Your task to perform on an android device: toggle airplane mode Image 0: 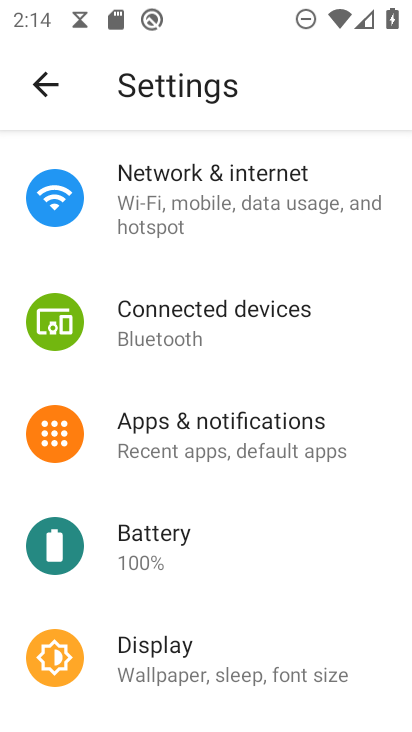
Step 0: click (240, 194)
Your task to perform on an android device: toggle airplane mode Image 1: 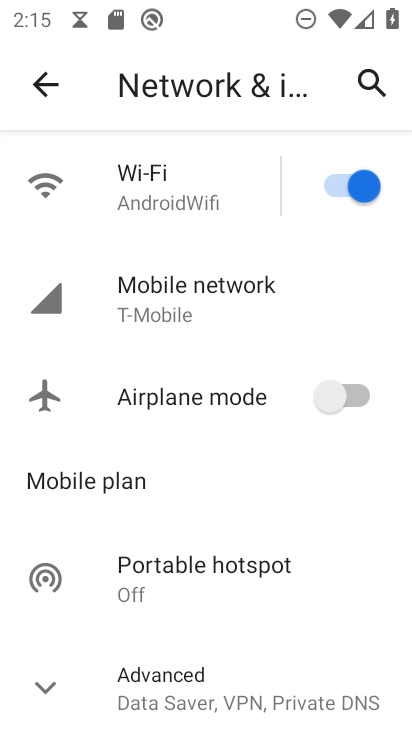
Step 1: click (380, 401)
Your task to perform on an android device: toggle airplane mode Image 2: 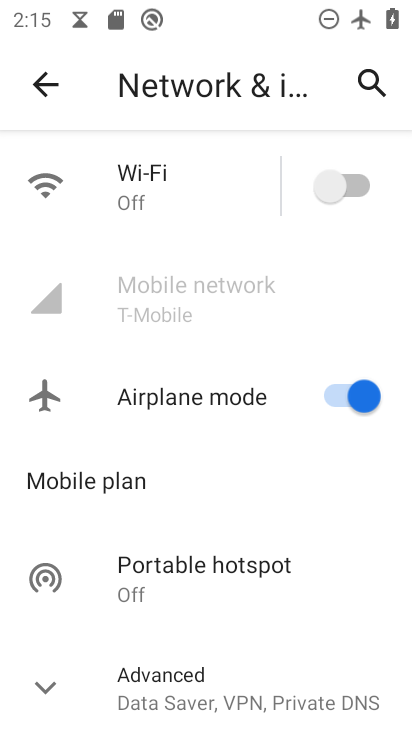
Step 2: task complete